Your task to perform on an android device: show emergency info Image 0: 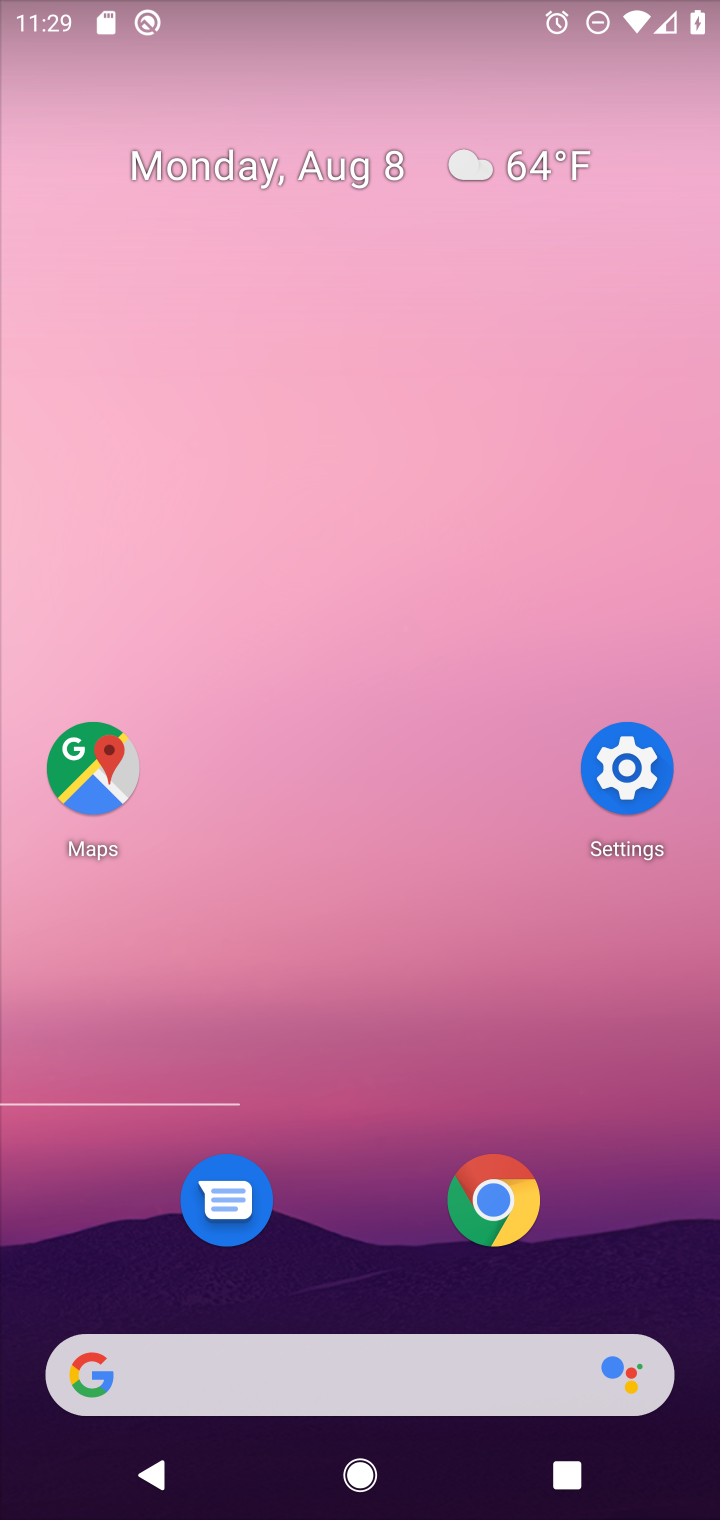
Step 0: press home button
Your task to perform on an android device: show emergency info Image 1: 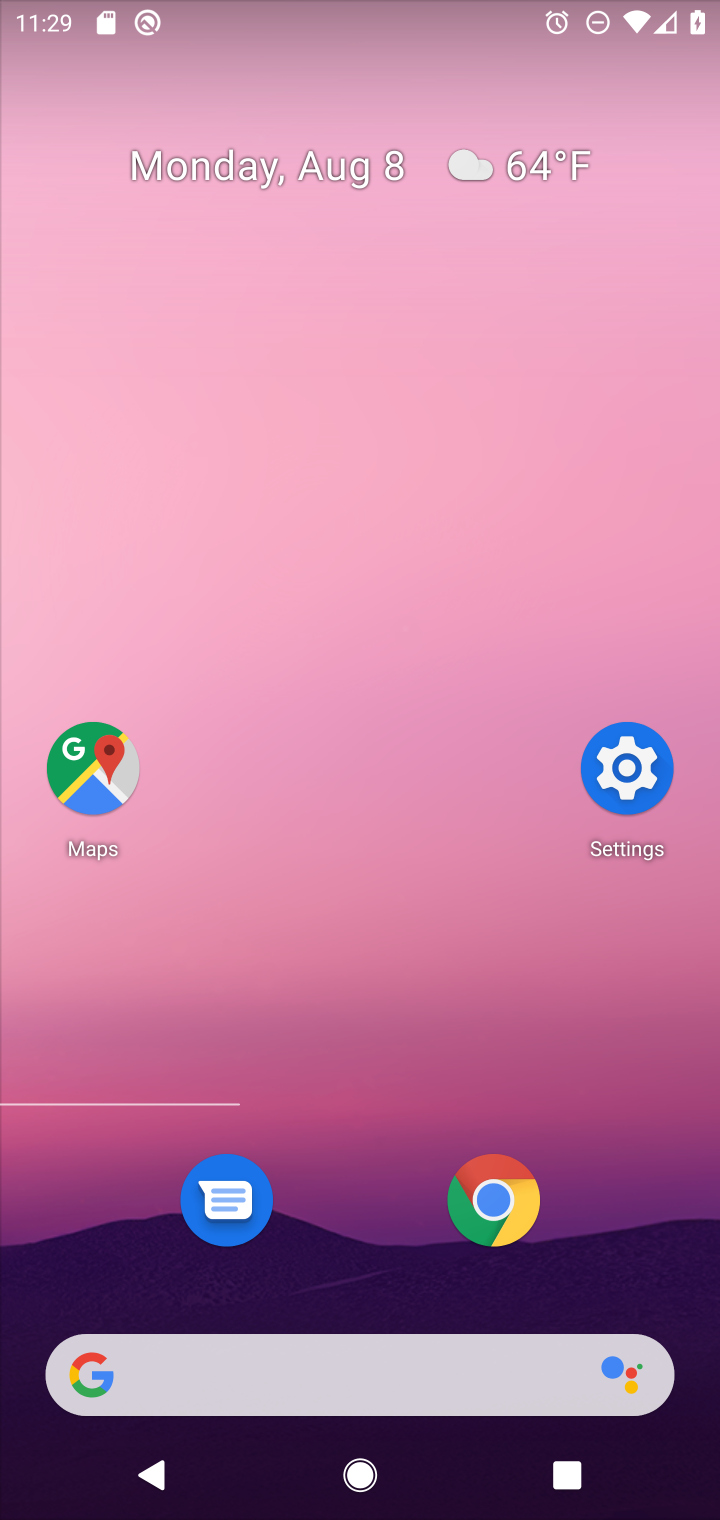
Step 1: click (632, 771)
Your task to perform on an android device: show emergency info Image 2: 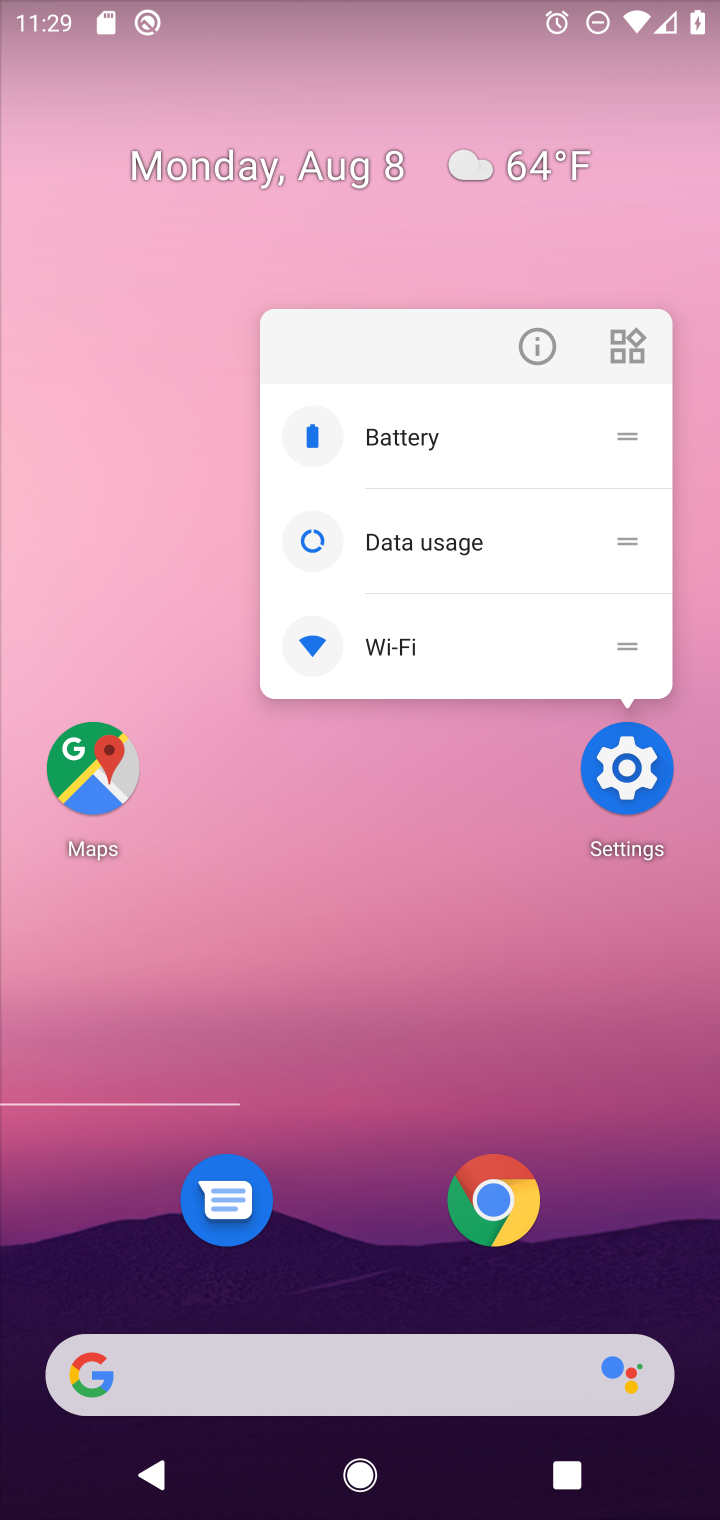
Step 2: click (641, 769)
Your task to perform on an android device: show emergency info Image 3: 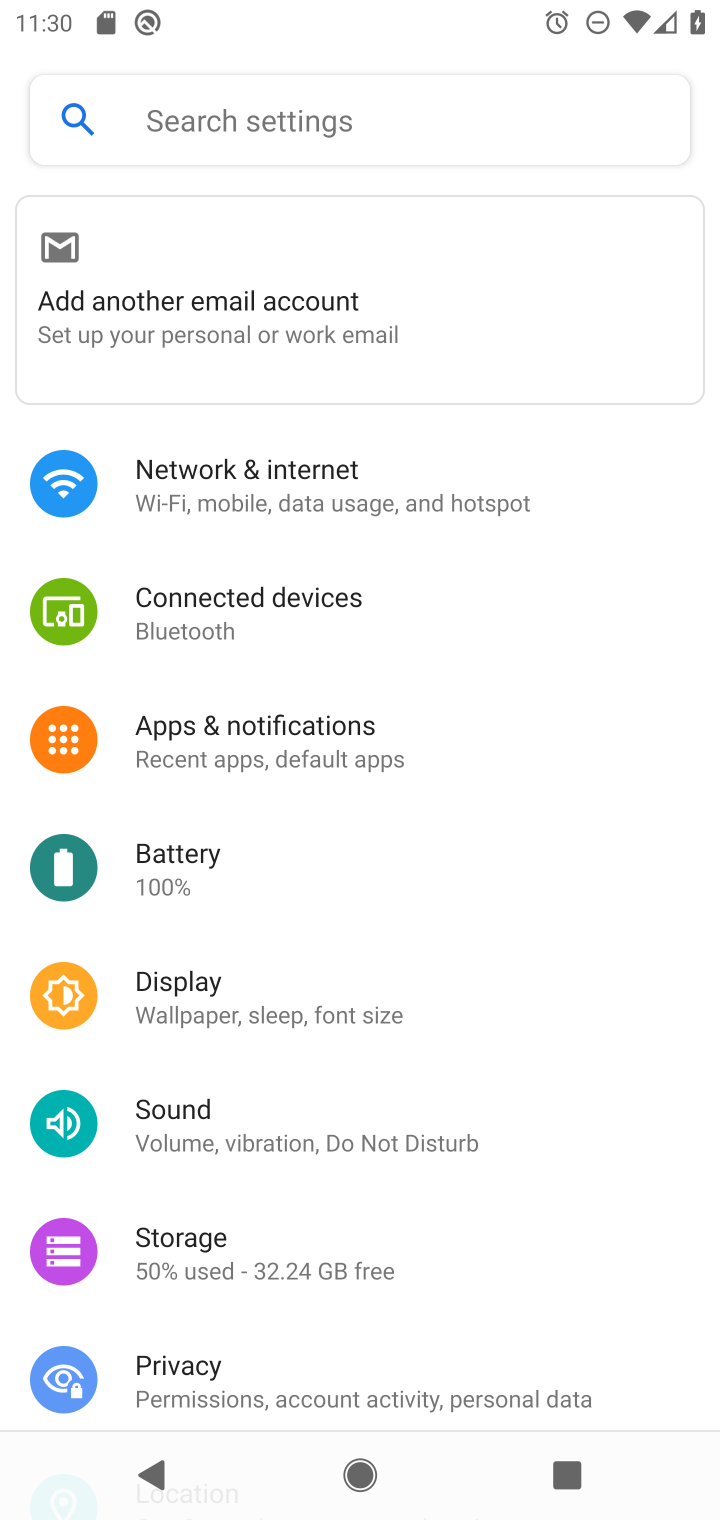
Step 3: drag from (360, 1331) to (671, 419)
Your task to perform on an android device: show emergency info Image 4: 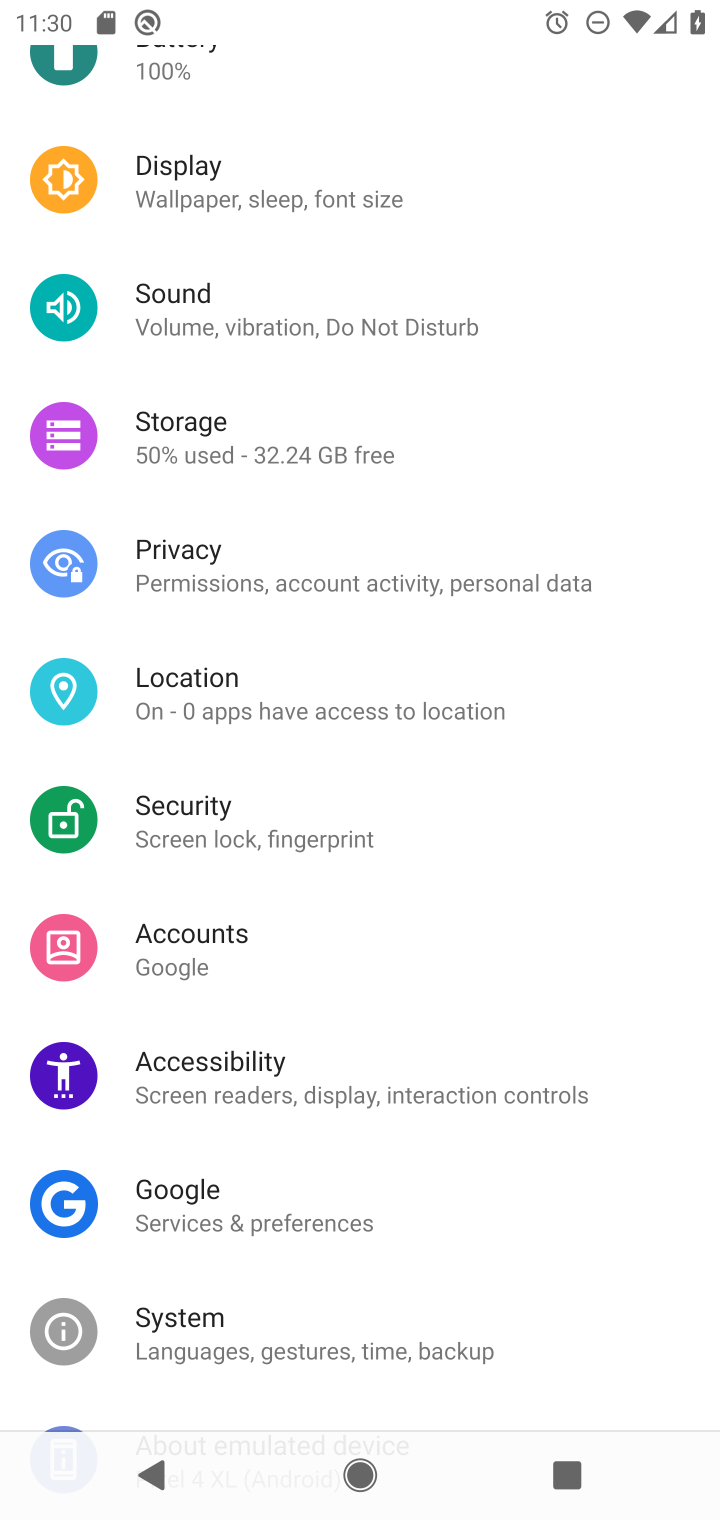
Step 4: drag from (489, 1229) to (624, 249)
Your task to perform on an android device: show emergency info Image 5: 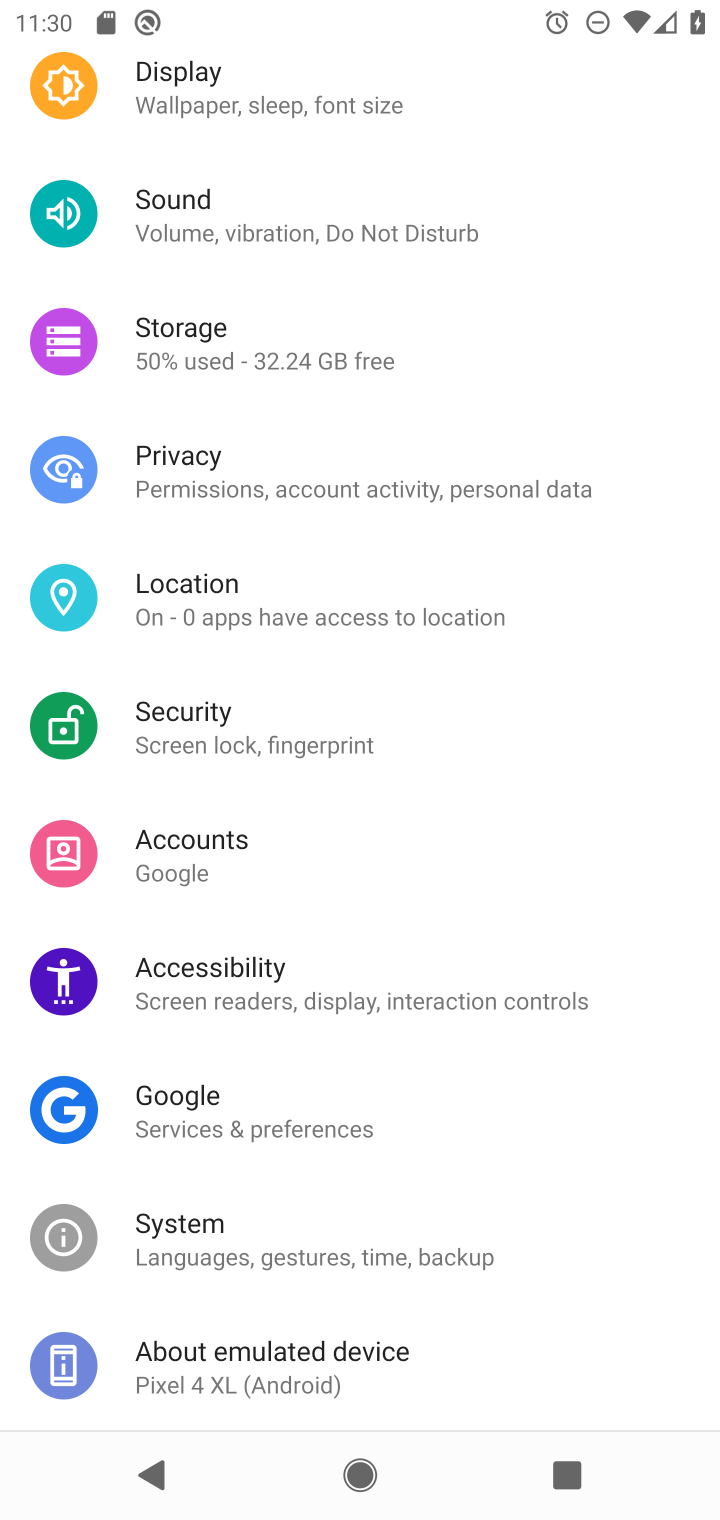
Step 5: click (282, 1349)
Your task to perform on an android device: show emergency info Image 6: 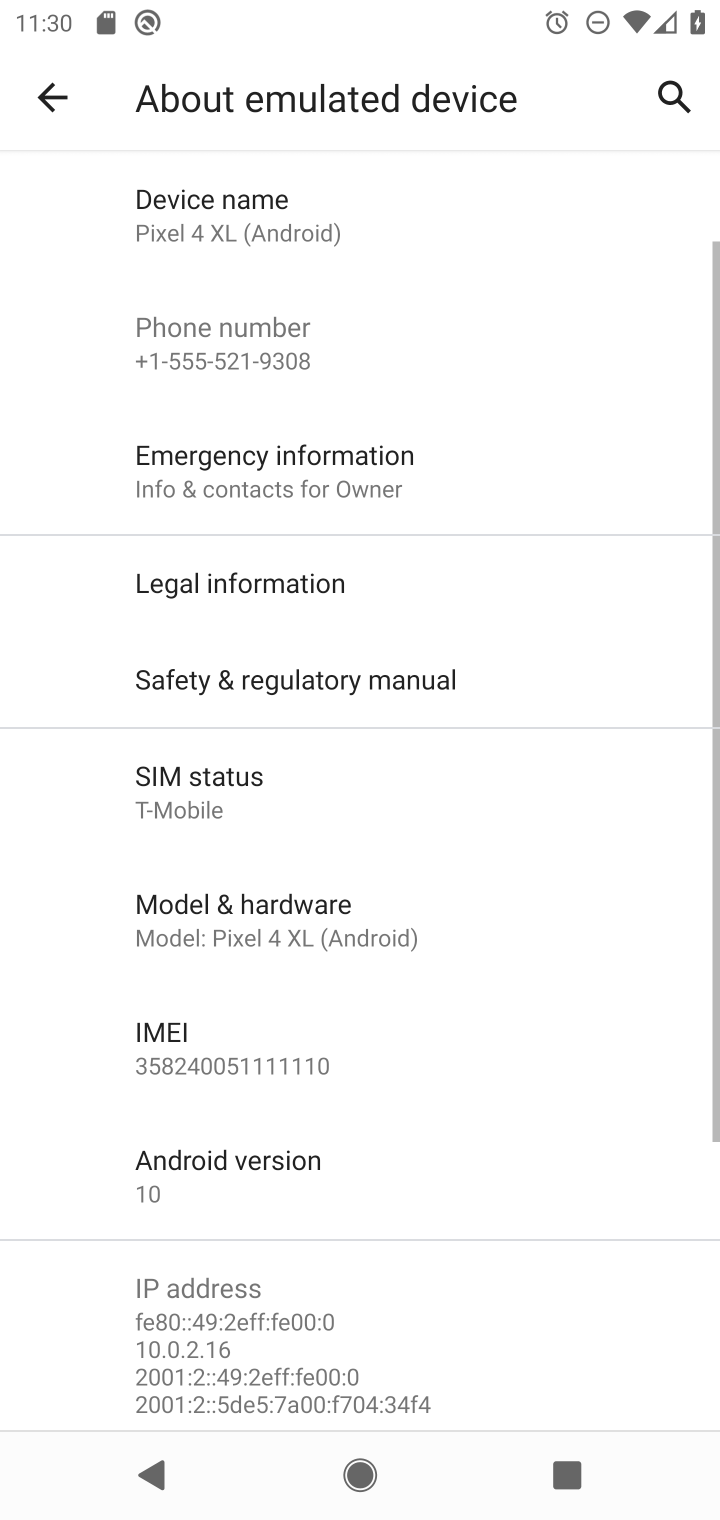
Step 6: click (319, 478)
Your task to perform on an android device: show emergency info Image 7: 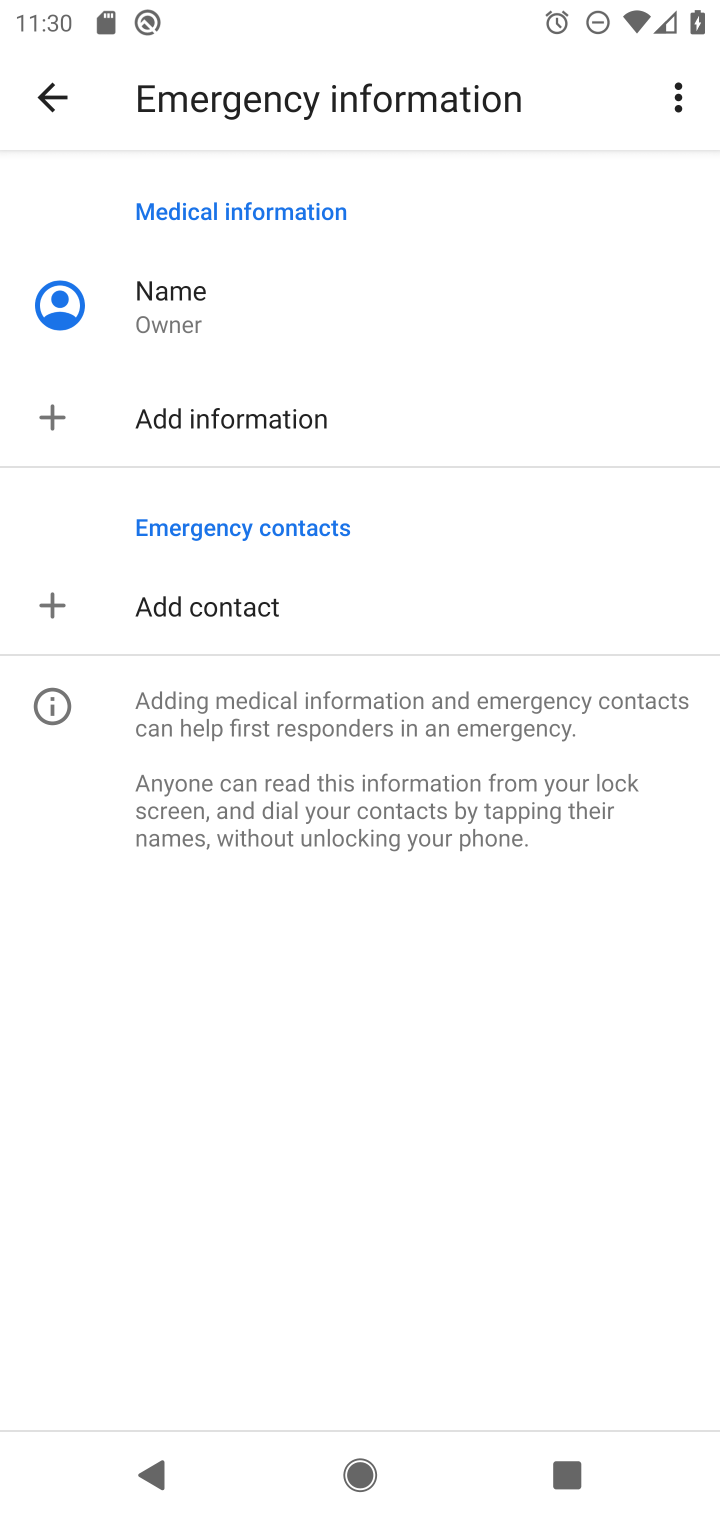
Step 7: task complete